Your task to perform on an android device: Go to Yahoo.com Image 0: 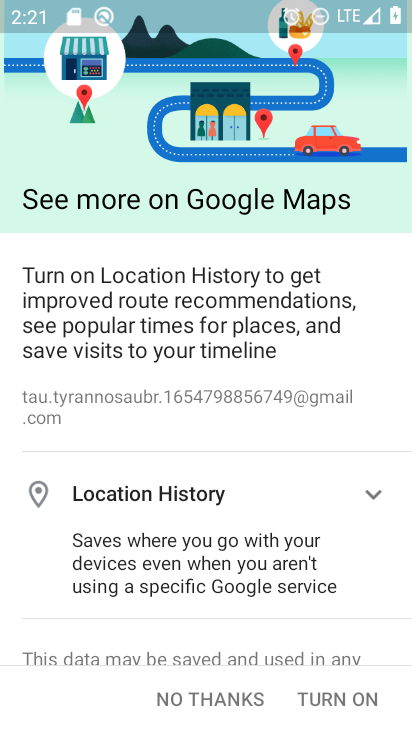
Step 0: press home button
Your task to perform on an android device: Go to Yahoo.com Image 1: 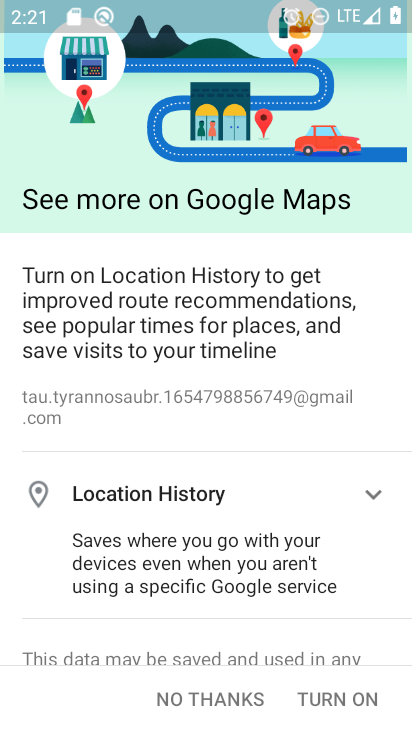
Step 1: press home button
Your task to perform on an android device: Go to Yahoo.com Image 2: 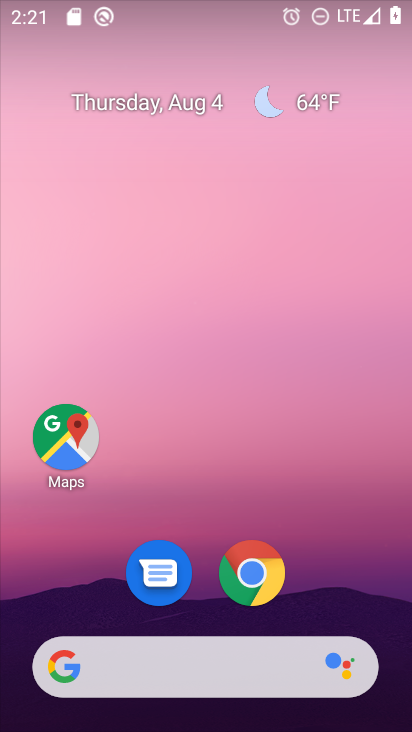
Step 2: drag from (343, 508) to (319, 31)
Your task to perform on an android device: Go to Yahoo.com Image 3: 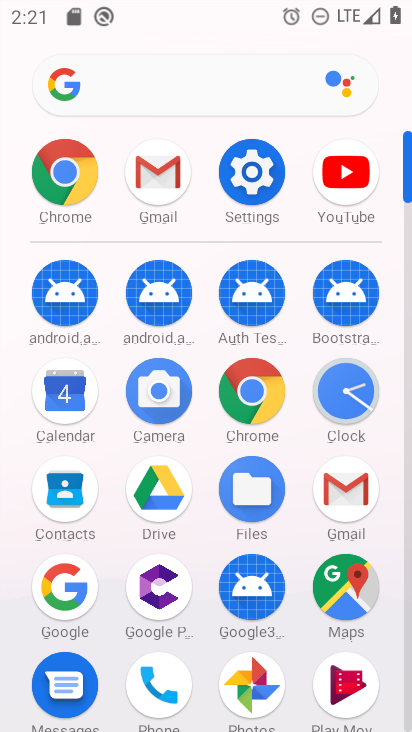
Step 3: click (252, 386)
Your task to perform on an android device: Go to Yahoo.com Image 4: 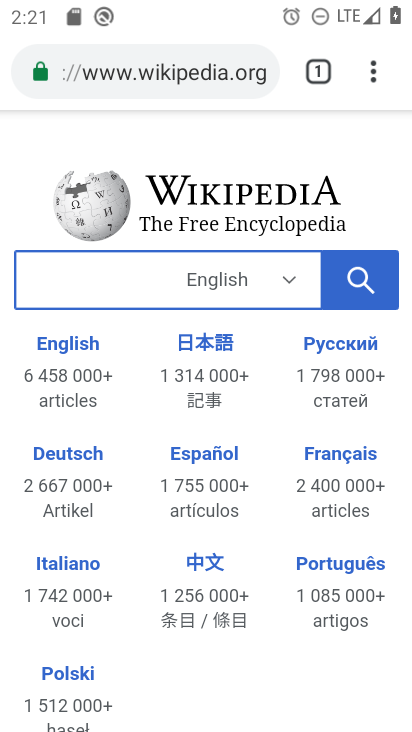
Step 4: click (226, 70)
Your task to perform on an android device: Go to Yahoo.com Image 5: 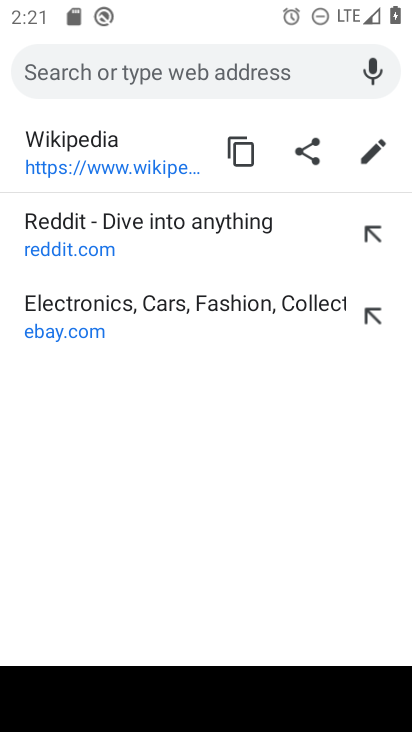
Step 5: type "yahoo.com"
Your task to perform on an android device: Go to Yahoo.com Image 6: 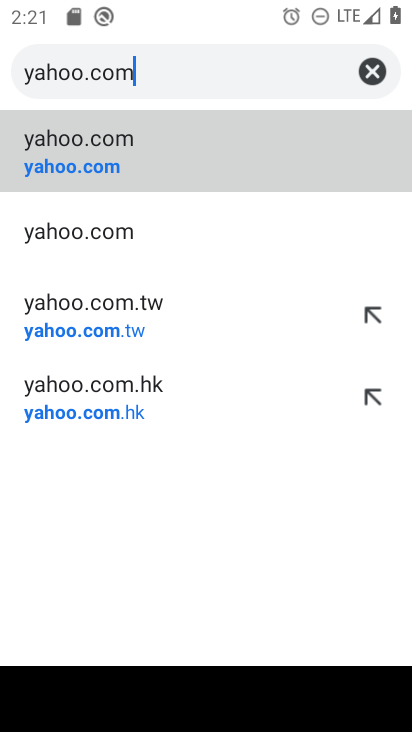
Step 6: click (129, 160)
Your task to perform on an android device: Go to Yahoo.com Image 7: 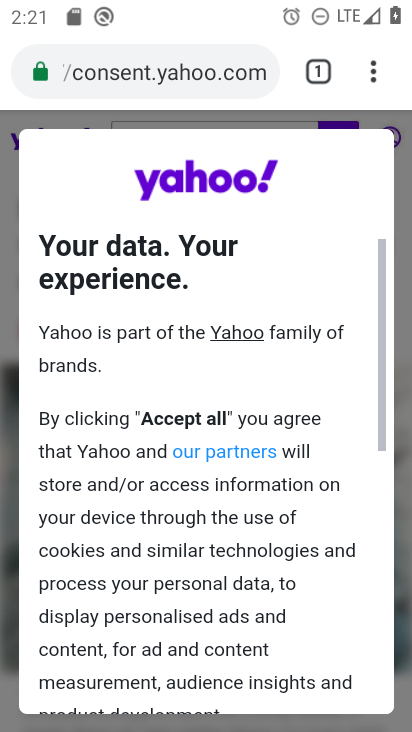
Step 7: task complete